Your task to perform on an android device: Go to notification settings Image 0: 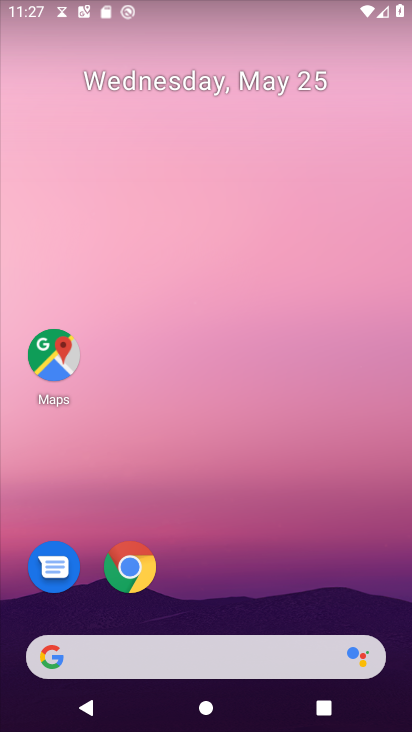
Step 0: drag from (289, 543) to (274, 1)
Your task to perform on an android device: Go to notification settings Image 1: 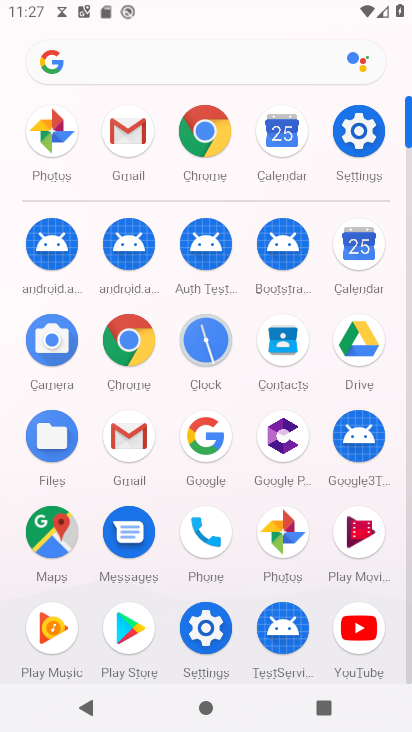
Step 1: click (357, 134)
Your task to perform on an android device: Go to notification settings Image 2: 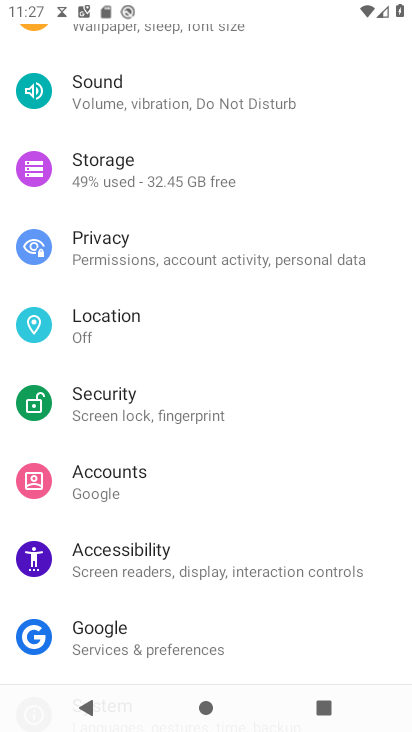
Step 2: drag from (206, 224) to (194, 604)
Your task to perform on an android device: Go to notification settings Image 3: 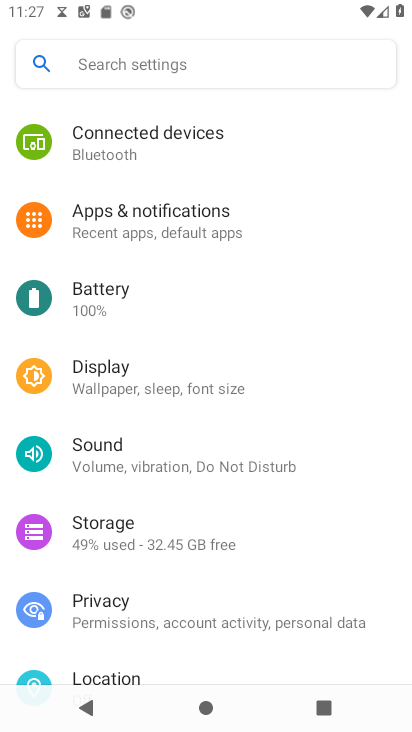
Step 3: click (180, 228)
Your task to perform on an android device: Go to notification settings Image 4: 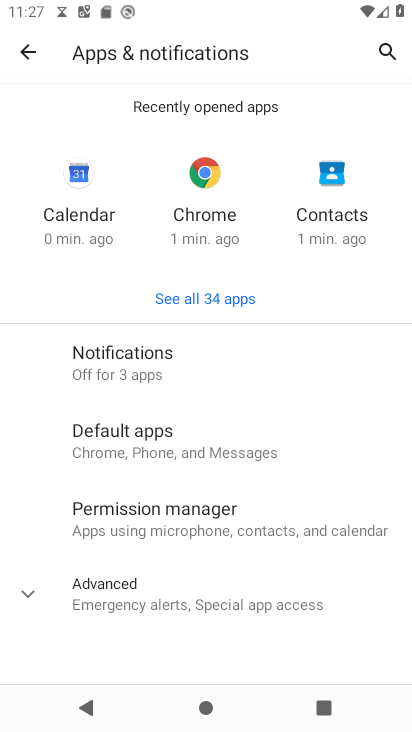
Step 4: task complete